Your task to perform on an android device: empty trash in google photos Image 0: 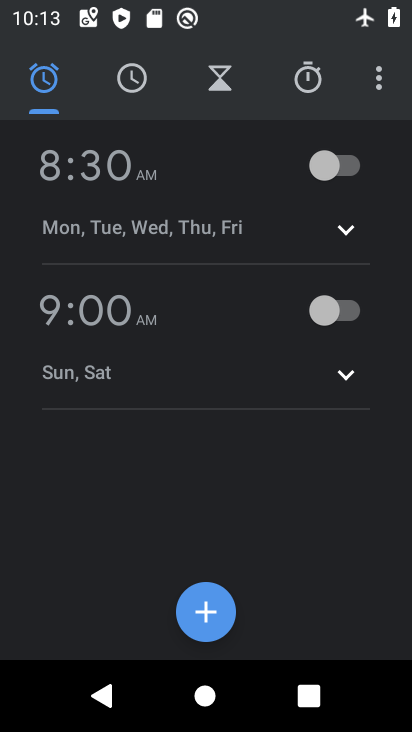
Step 0: press home button
Your task to perform on an android device: empty trash in google photos Image 1: 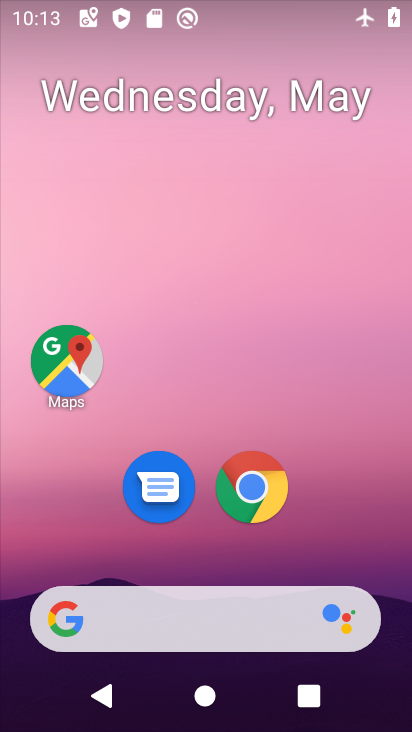
Step 1: drag from (215, 555) to (327, 371)
Your task to perform on an android device: empty trash in google photos Image 2: 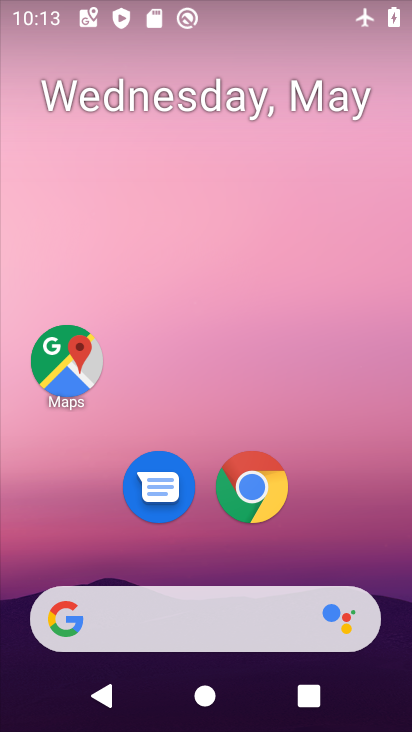
Step 2: drag from (205, 549) to (259, 4)
Your task to perform on an android device: empty trash in google photos Image 3: 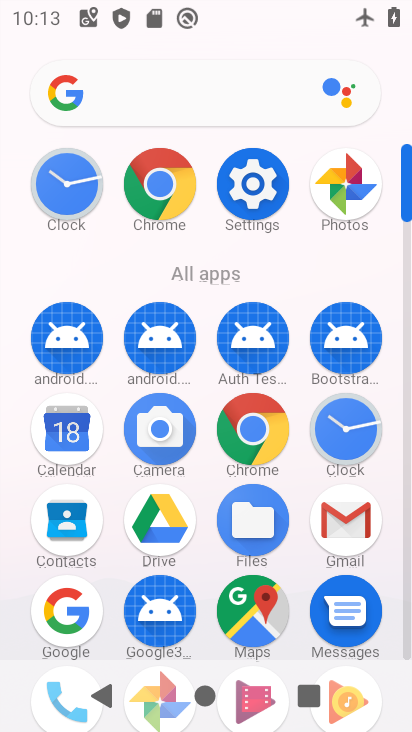
Step 3: drag from (207, 542) to (220, 77)
Your task to perform on an android device: empty trash in google photos Image 4: 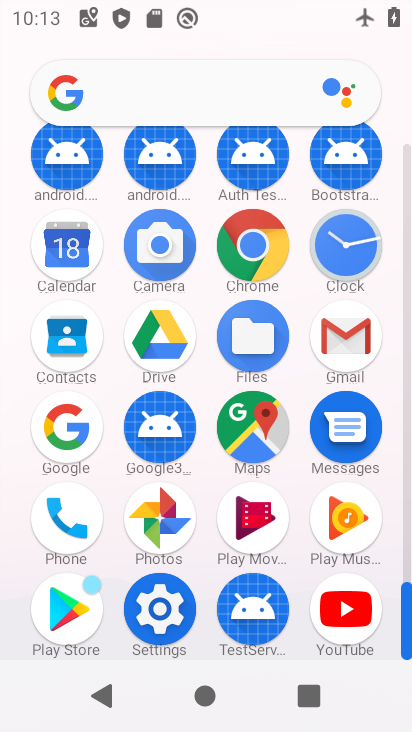
Step 4: click (146, 516)
Your task to perform on an android device: empty trash in google photos Image 5: 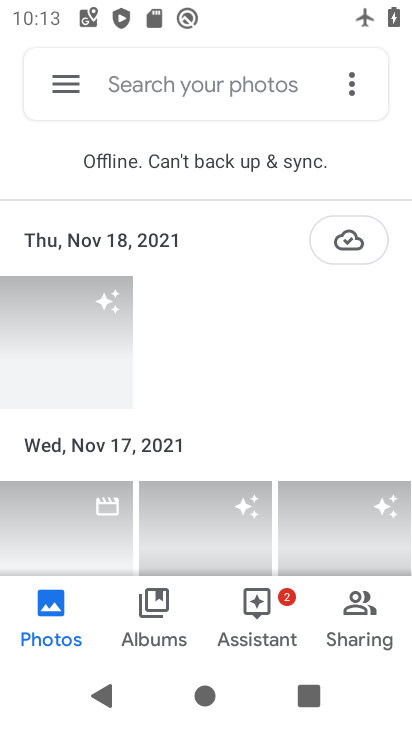
Step 5: click (68, 84)
Your task to perform on an android device: empty trash in google photos Image 6: 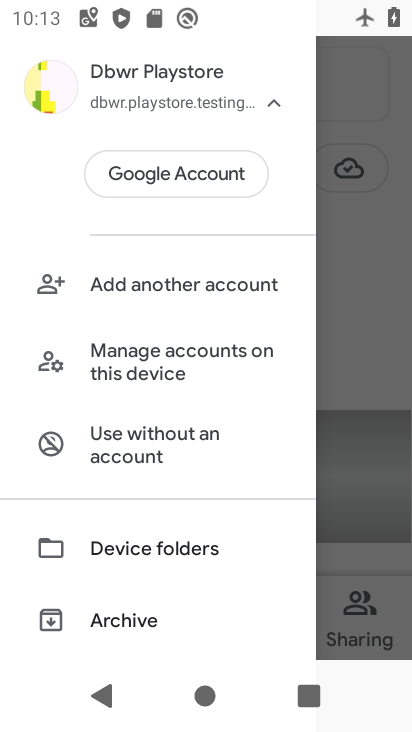
Step 6: drag from (129, 526) to (130, 61)
Your task to perform on an android device: empty trash in google photos Image 7: 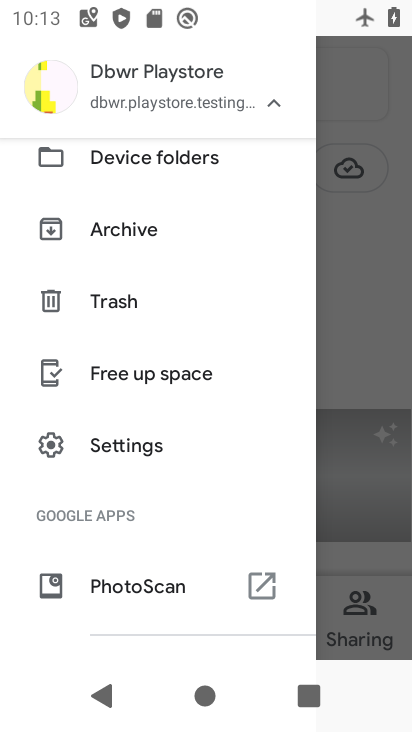
Step 7: click (114, 295)
Your task to perform on an android device: empty trash in google photos Image 8: 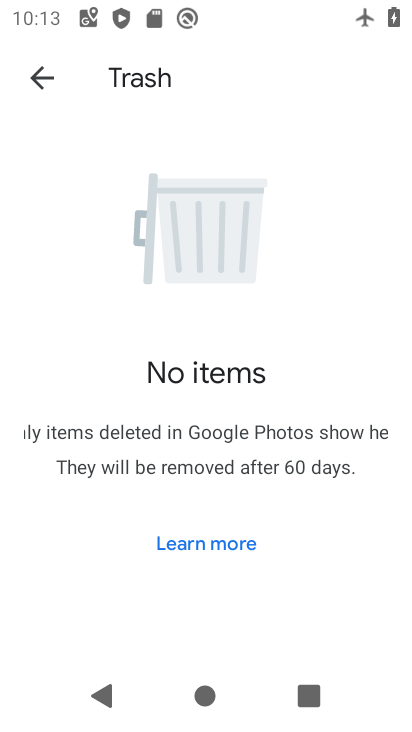
Step 8: task complete